Your task to perform on an android device: uninstall "DuckDuckGo Privacy Browser" Image 0: 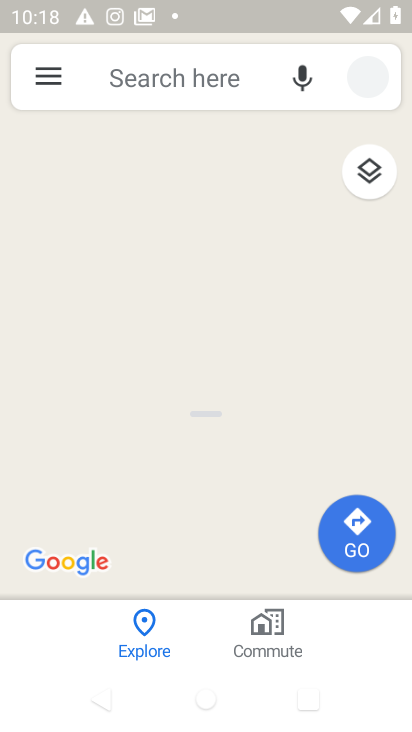
Step 0: press home button
Your task to perform on an android device: uninstall "DuckDuckGo Privacy Browser" Image 1: 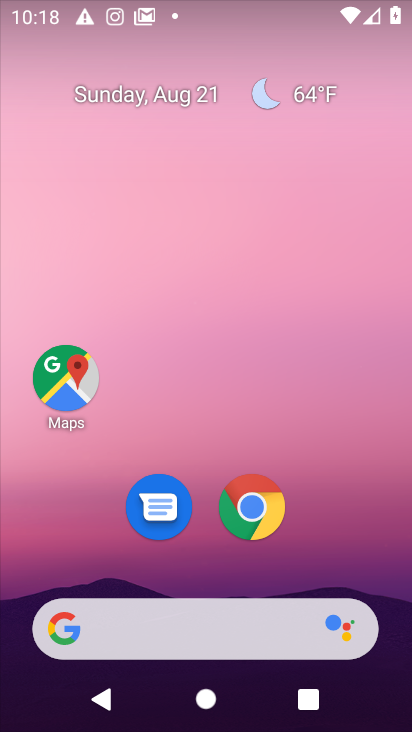
Step 1: drag from (208, 574) to (207, 93)
Your task to perform on an android device: uninstall "DuckDuckGo Privacy Browser" Image 2: 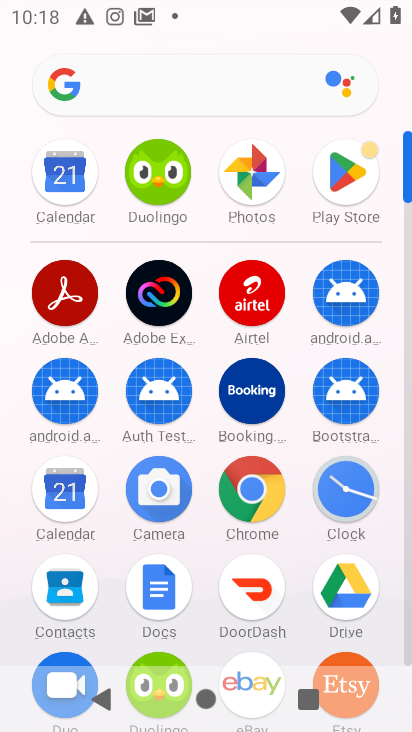
Step 2: click (342, 186)
Your task to perform on an android device: uninstall "DuckDuckGo Privacy Browser" Image 3: 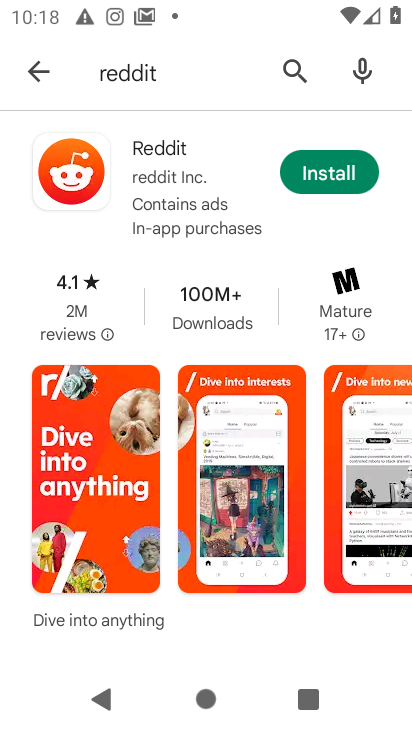
Step 3: click (41, 73)
Your task to perform on an android device: uninstall "DuckDuckGo Privacy Browser" Image 4: 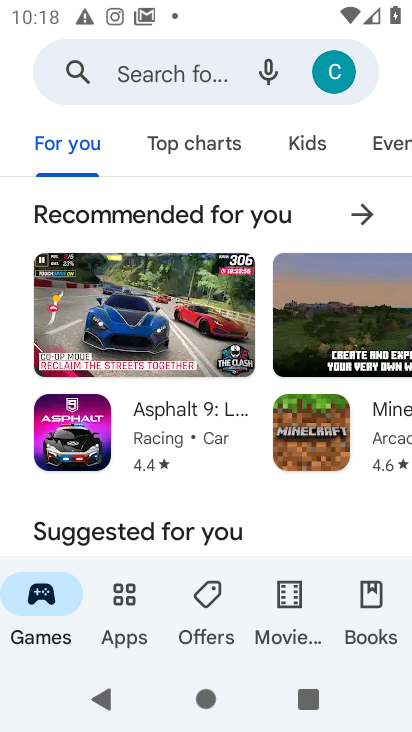
Step 4: click (133, 90)
Your task to perform on an android device: uninstall "DuckDuckGo Privacy Browser" Image 5: 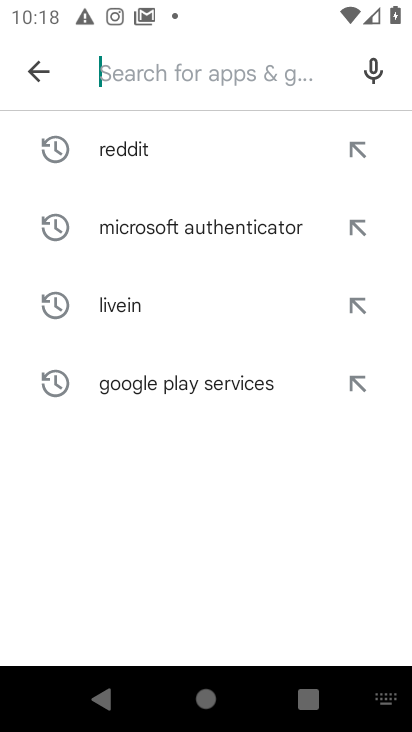
Step 5: type "DuckDuckGo Privacy Browser"
Your task to perform on an android device: uninstall "DuckDuckGo Privacy Browser" Image 6: 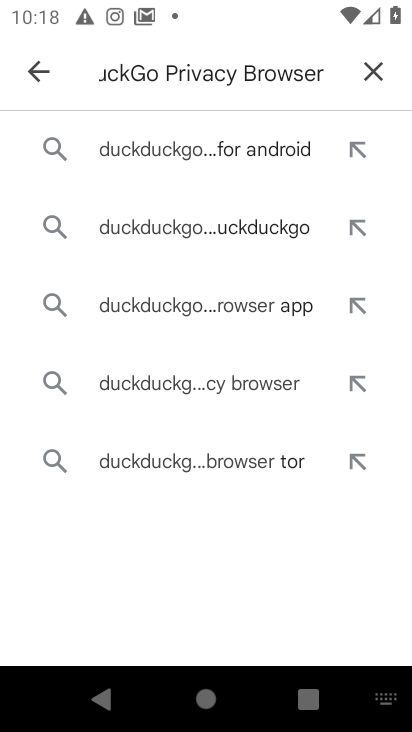
Step 6: click (292, 152)
Your task to perform on an android device: uninstall "DuckDuckGo Privacy Browser" Image 7: 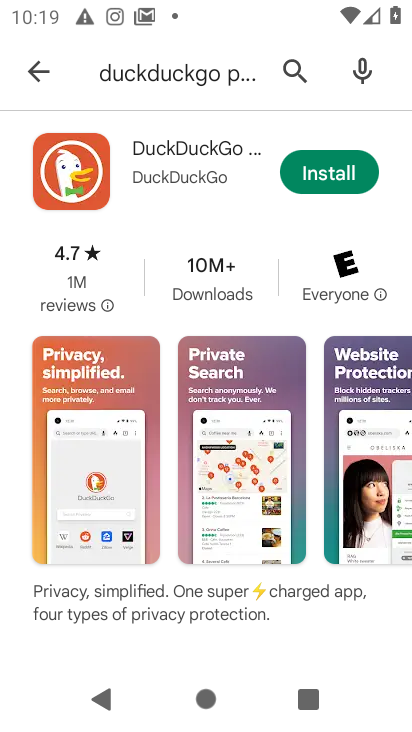
Step 7: task complete